Your task to perform on an android device: open app "Adobe Express: Graphic Design" Image 0: 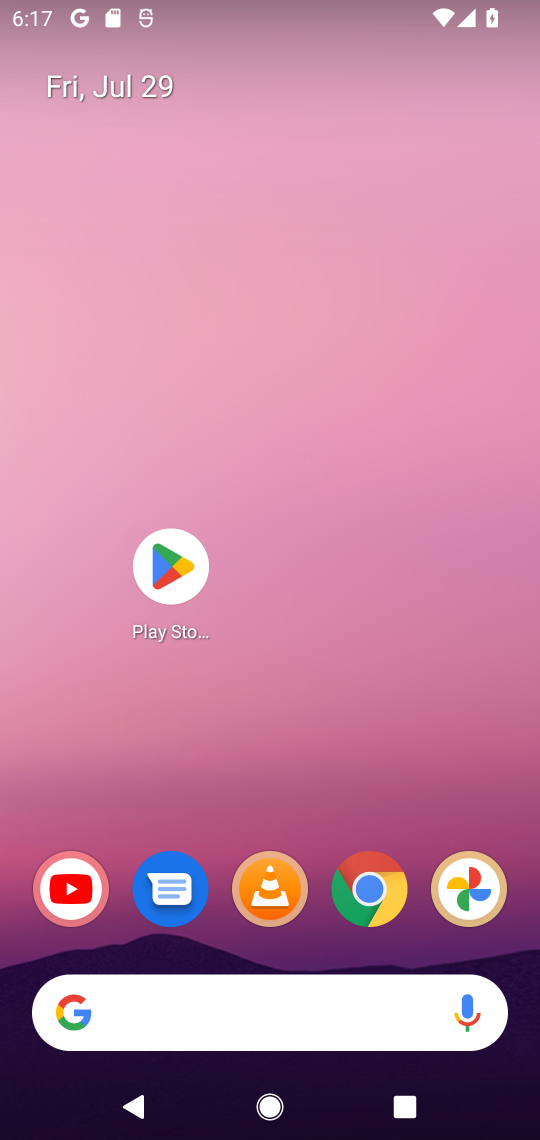
Step 0: click (163, 561)
Your task to perform on an android device: open app "Adobe Express: Graphic Design" Image 1: 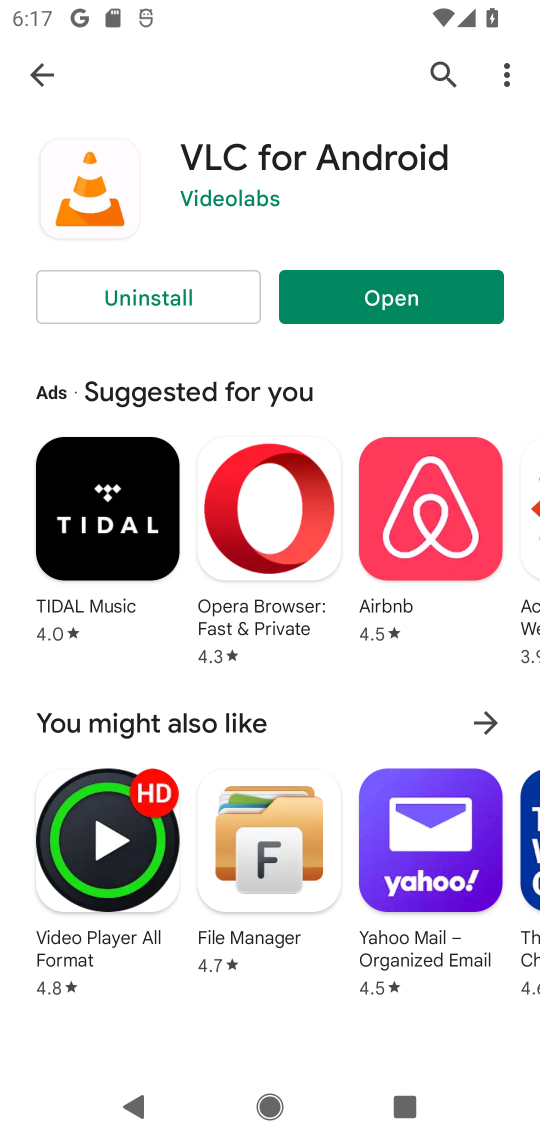
Step 1: click (438, 71)
Your task to perform on an android device: open app "Adobe Express: Graphic Design" Image 2: 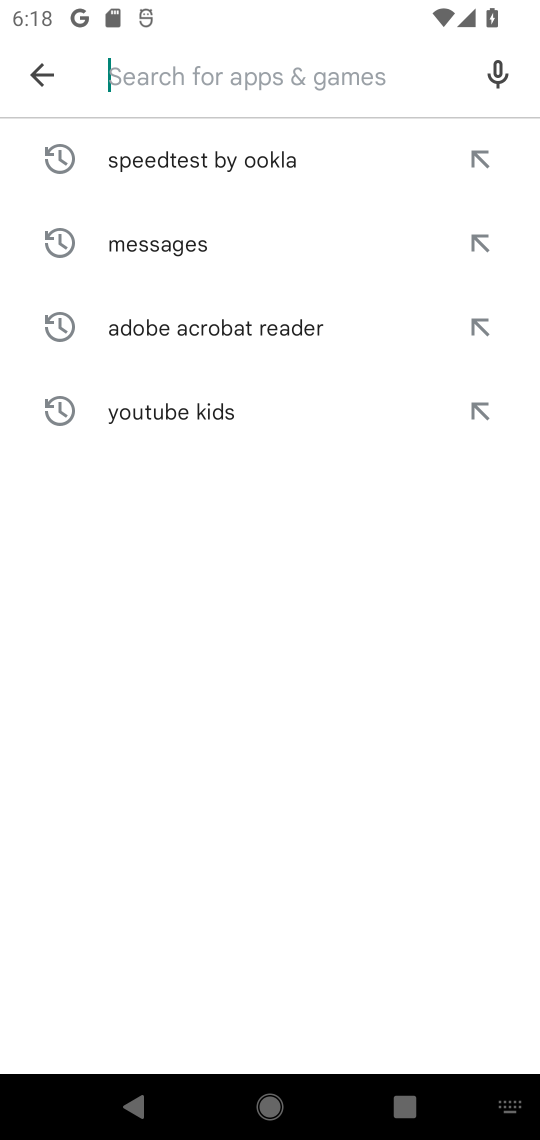
Step 2: type "Adobe Express: Graphic Design"
Your task to perform on an android device: open app "Adobe Express: Graphic Design" Image 3: 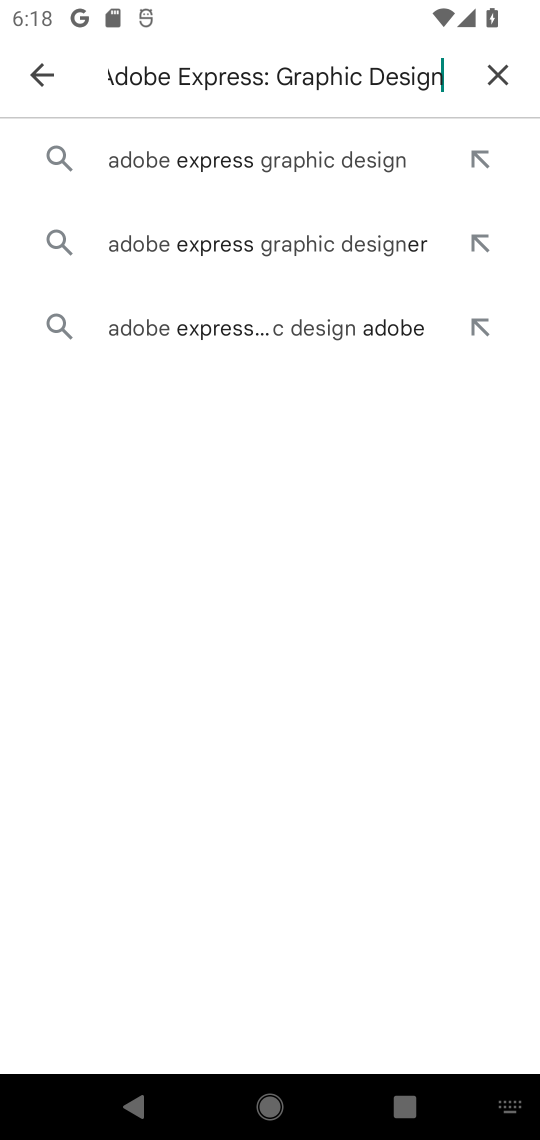
Step 3: click (313, 160)
Your task to perform on an android device: open app "Adobe Express: Graphic Design" Image 4: 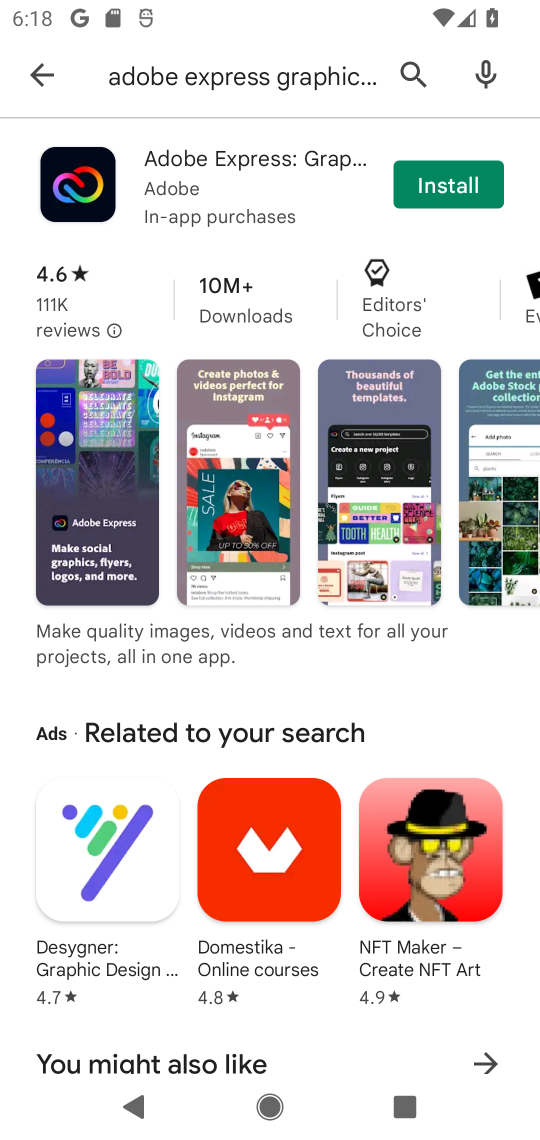
Step 4: task complete